Your task to perform on an android device: Open Google Image 0: 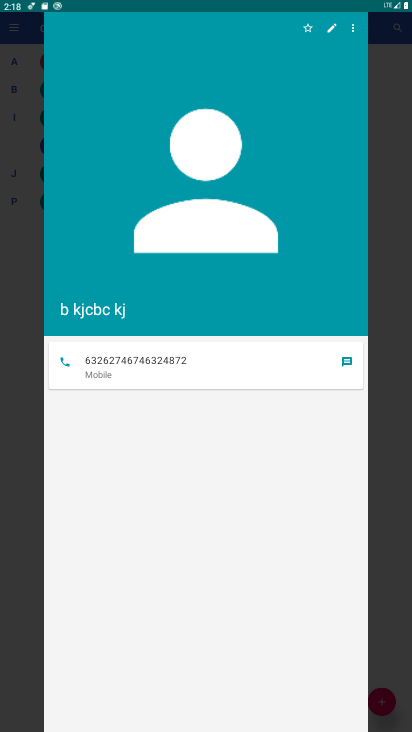
Step 0: press back button
Your task to perform on an android device: Open Google Image 1: 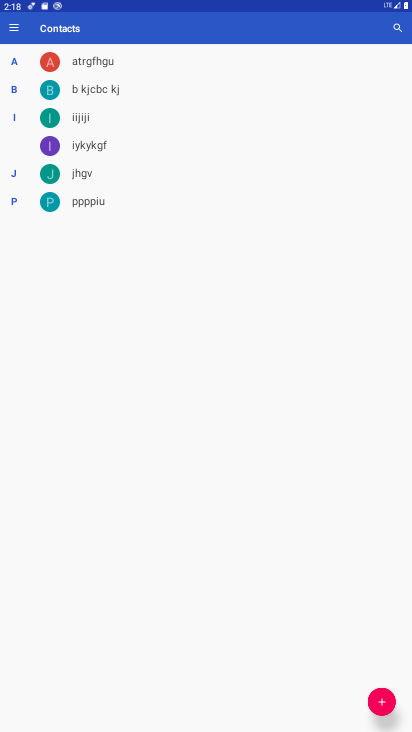
Step 1: press home button
Your task to perform on an android device: Open Google Image 2: 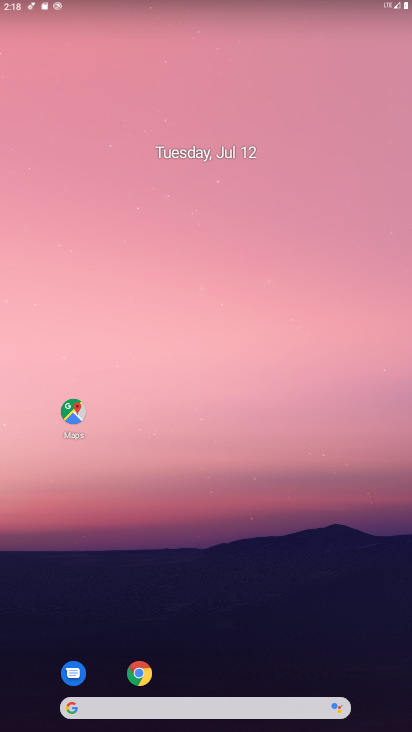
Step 2: drag from (238, 597) to (94, 174)
Your task to perform on an android device: Open Google Image 3: 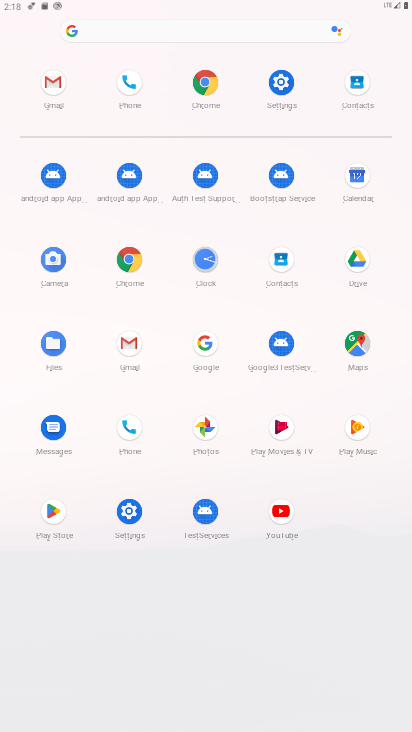
Step 3: click (196, 346)
Your task to perform on an android device: Open Google Image 4: 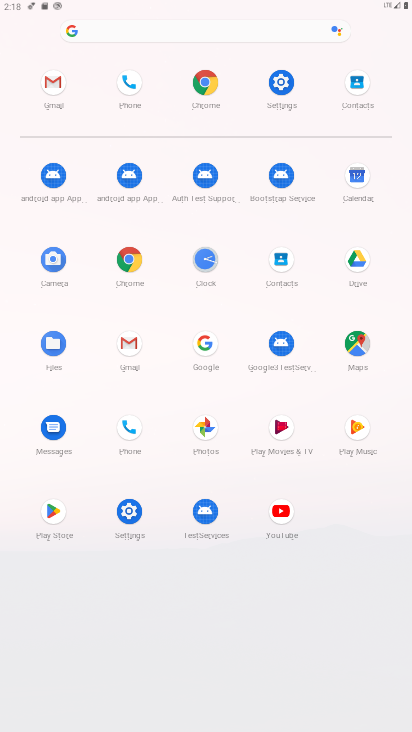
Step 4: click (197, 349)
Your task to perform on an android device: Open Google Image 5: 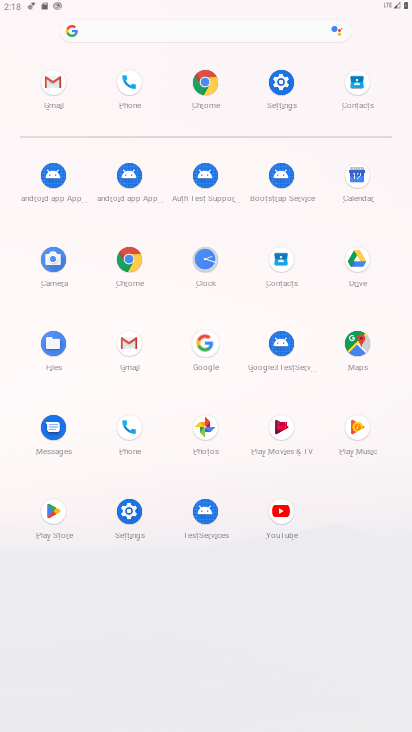
Step 5: click (197, 349)
Your task to perform on an android device: Open Google Image 6: 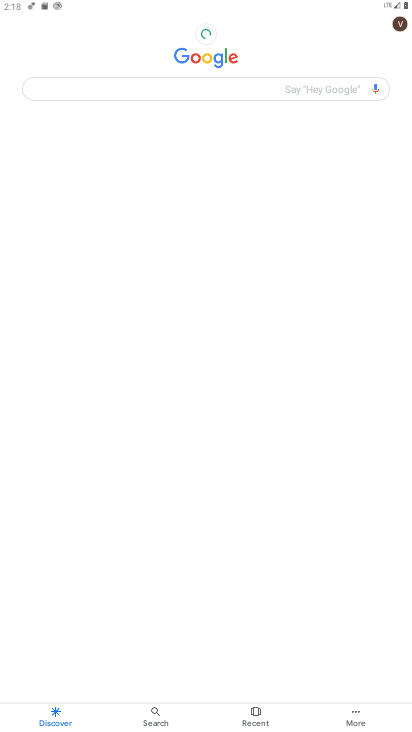
Step 6: task complete